Your task to perform on an android device: Show me recent news Image 0: 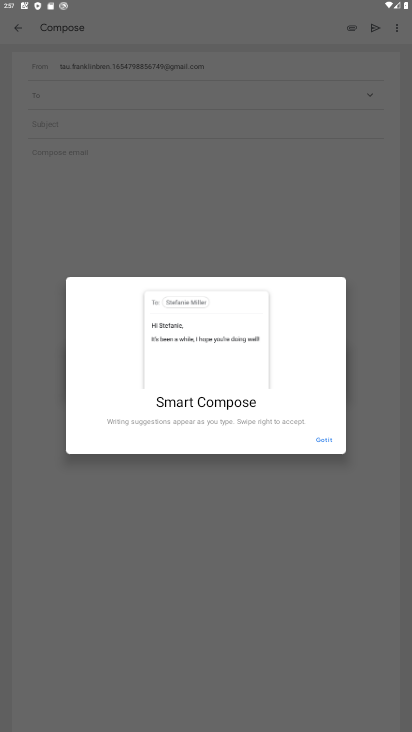
Step 0: press home button
Your task to perform on an android device: Show me recent news Image 1: 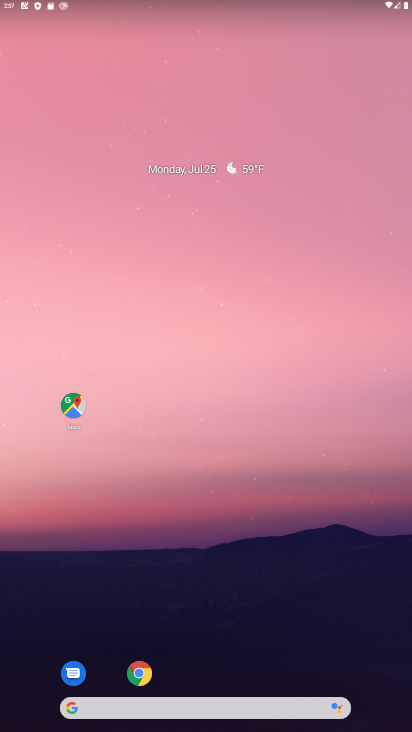
Step 1: click (173, 712)
Your task to perform on an android device: Show me recent news Image 2: 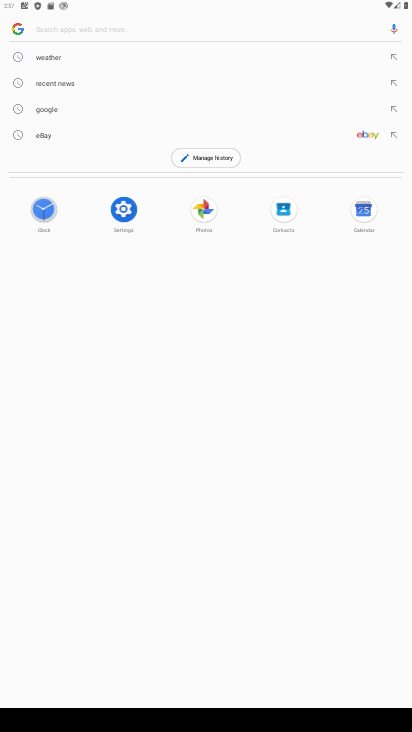
Step 2: click (34, 87)
Your task to perform on an android device: Show me recent news Image 3: 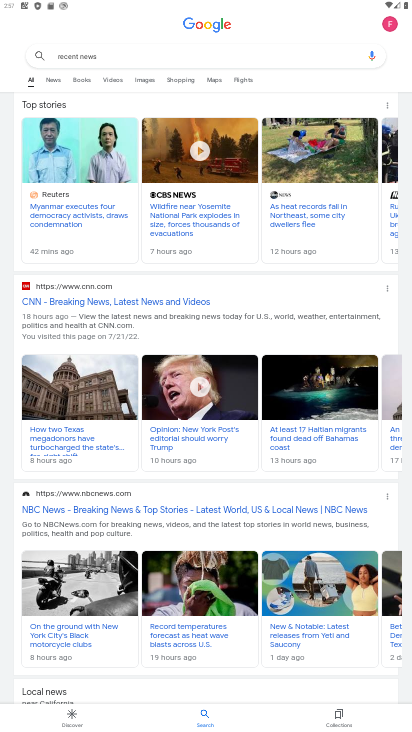
Step 3: task complete